Your task to perform on an android device: Open sound settings Image 0: 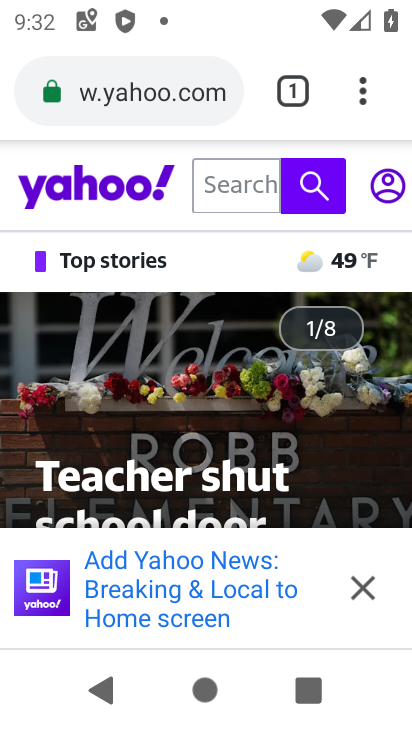
Step 0: press home button
Your task to perform on an android device: Open sound settings Image 1: 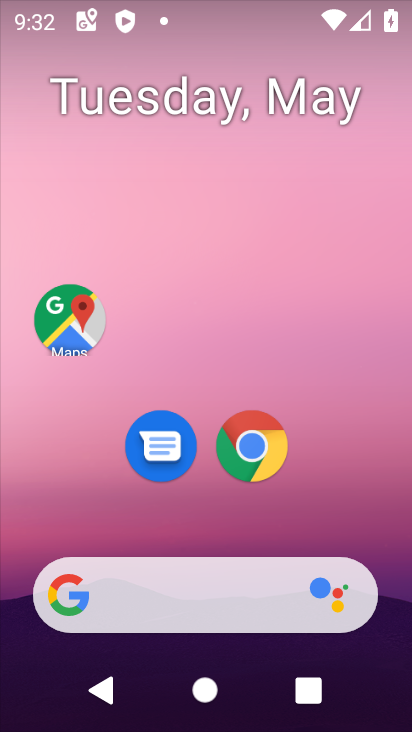
Step 1: drag from (211, 636) to (151, 166)
Your task to perform on an android device: Open sound settings Image 2: 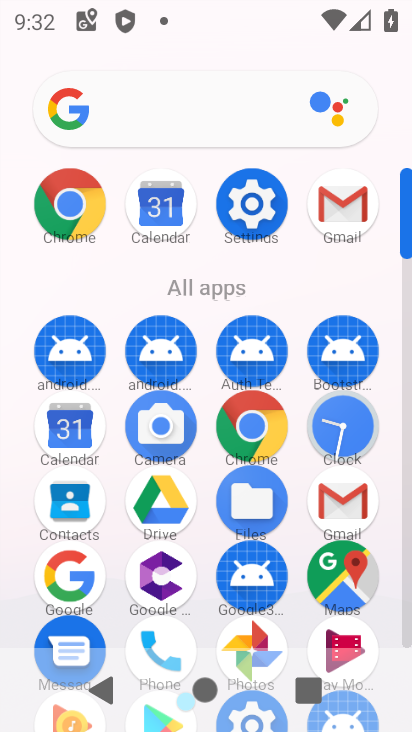
Step 2: click (245, 235)
Your task to perform on an android device: Open sound settings Image 3: 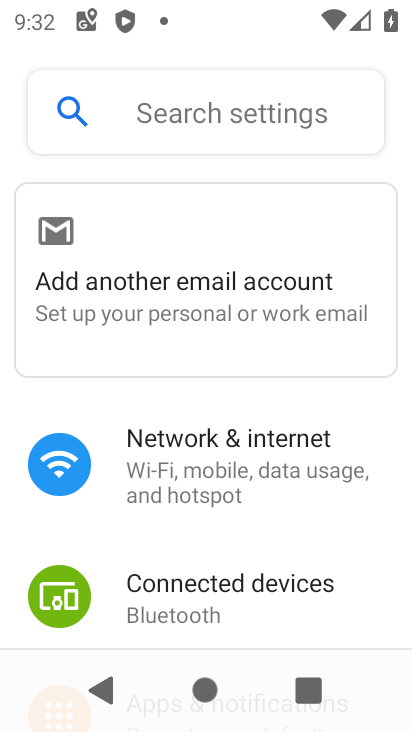
Step 3: drag from (213, 539) to (84, 21)
Your task to perform on an android device: Open sound settings Image 4: 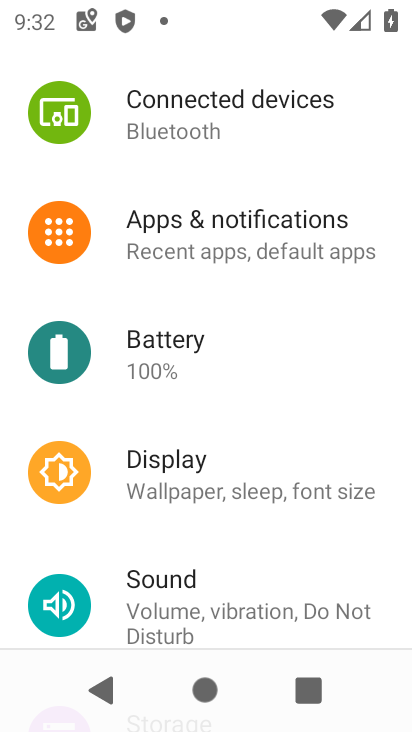
Step 4: click (205, 585)
Your task to perform on an android device: Open sound settings Image 5: 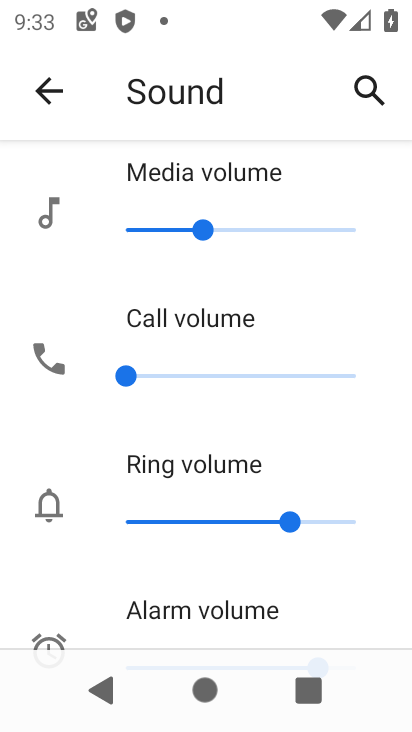
Step 5: task complete